Your task to perform on an android device: Open Youtube and go to "Your channel" Image 0: 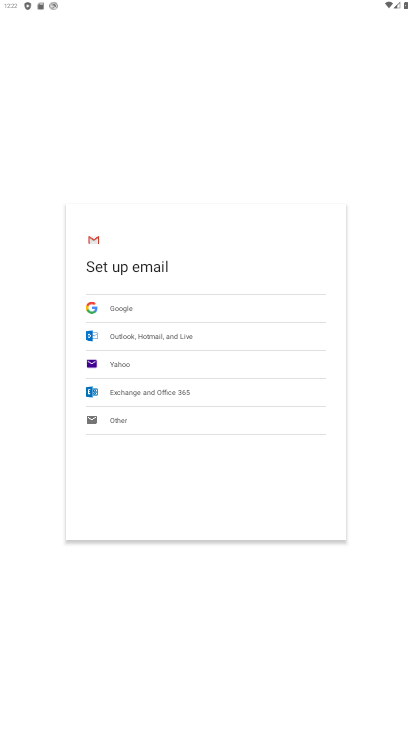
Step 0: press home button
Your task to perform on an android device: Open Youtube and go to "Your channel" Image 1: 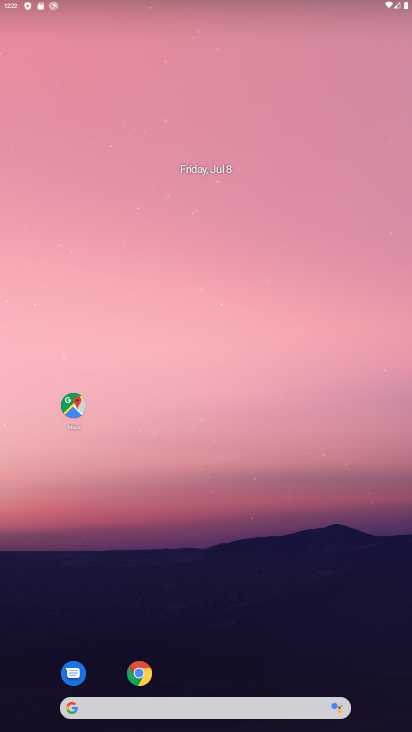
Step 1: drag from (226, 655) to (234, 103)
Your task to perform on an android device: Open Youtube and go to "Your channel" Image 2: 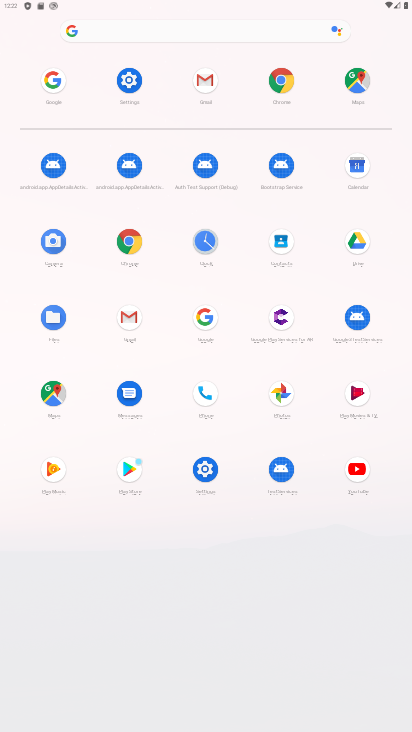
Step 2: click (353, 472)
Your task to perform on an android device: Open Youtube and go to "Your channel" Image 3: 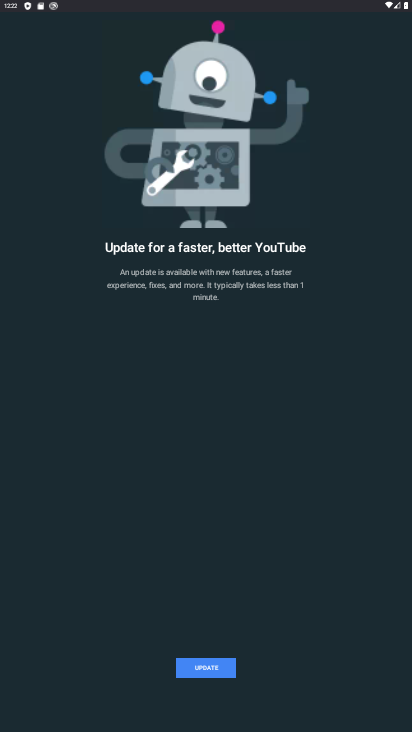
Step 3: click (207, 670)
Your task to perform on an android device: Open Youtube and go to "Your channel" Image 4: 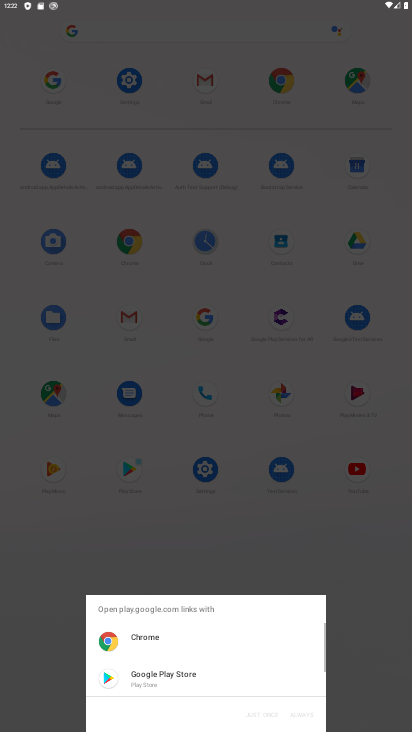
Step 4: click (152, 678)
Your task to perform on an android device: Open Youtube and go to "Your channel" Image 5: 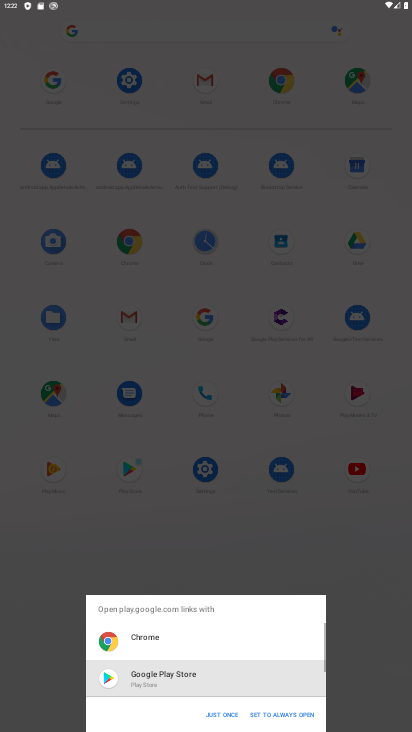
Step 5: click (216, 710)
Your task to perform on an android device: Open Youtube and go to "Your channel" Image 6: 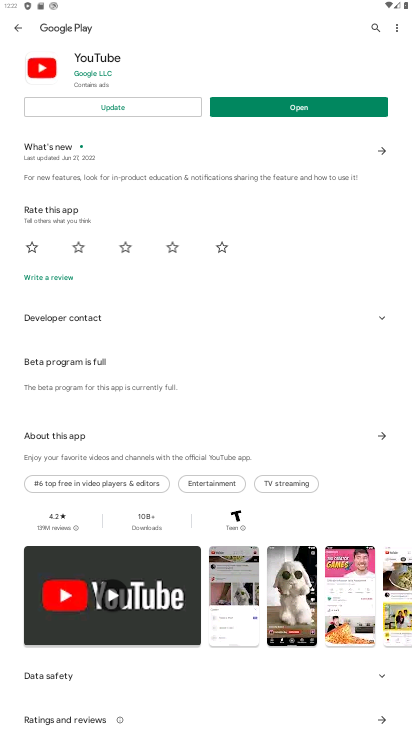
Step 6: click (108, 106)
Your task to perform on an android device: Open Youtube and go to "Your channel" Image 7: 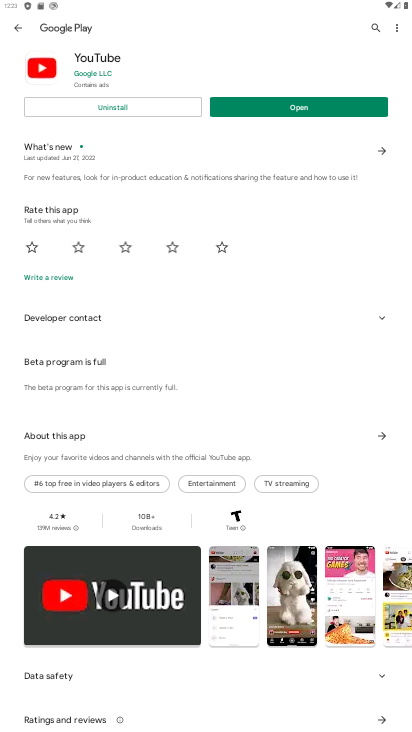
Step 7: click (293, 96)
Your task to perform on an android device: Open Youtube and go to "Your channel" Image 8: 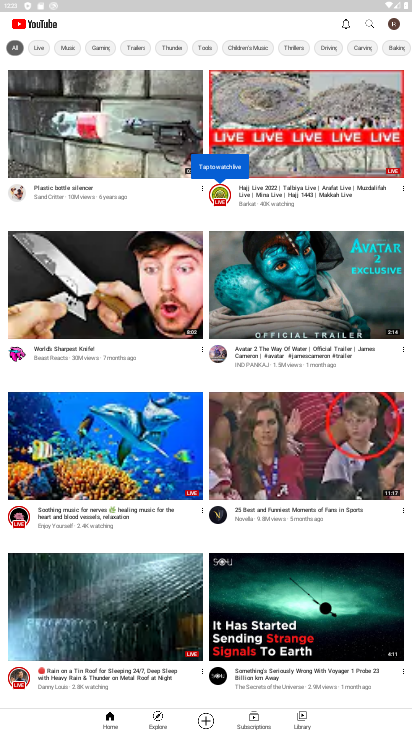
Step 8: click (397, 27)
Your task to perform on an android device: Open Youtube and go to "Your channel" Image 9: 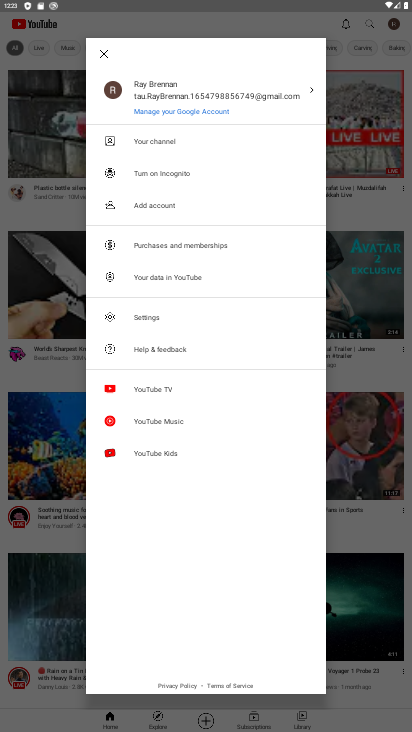
Step 9: click (159, 140)
Your task to perform on an android device: Open Youtube and go to "Your channel" Image 10: 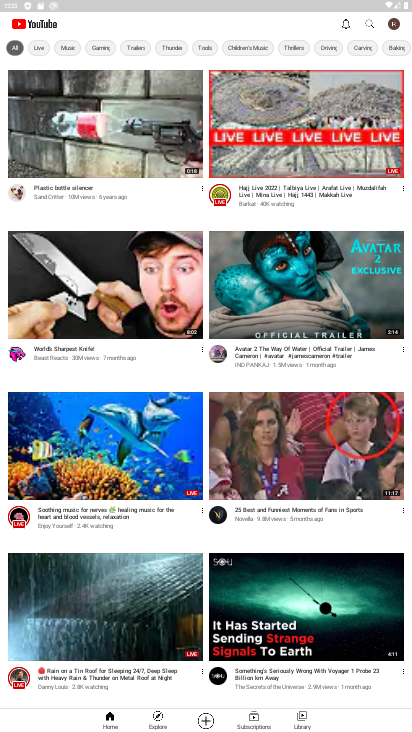
Step 10: click (393, 27)
Your task to perform on an android device: Open Youtube and go to "Your channel" Image 11: 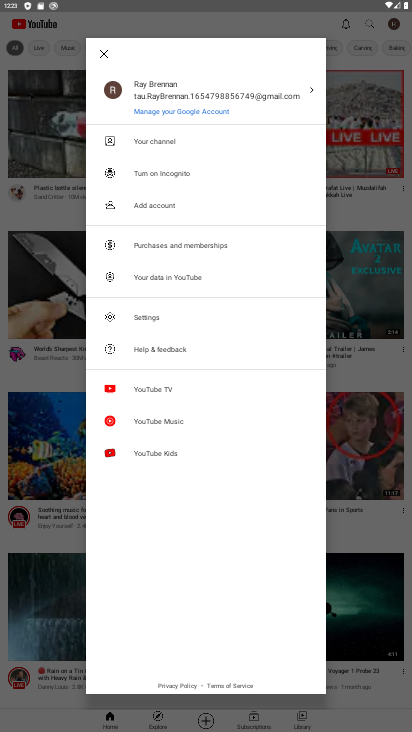
Step 11: click (155, 146)
Your task to perform on an android device: Open Youtube and go to "Your channel" Image 12: 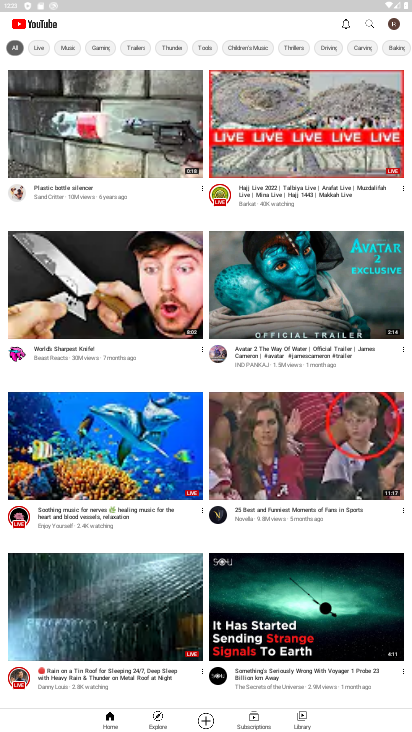
Step 12: task complete